Your task to perform on an android device: Open location settings Image 0: 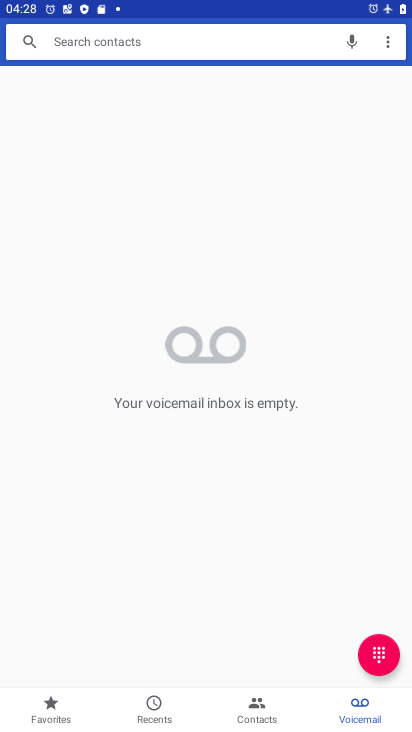
Step 0: press home button
Your task to perform on an android device: Open location settings Image 1: 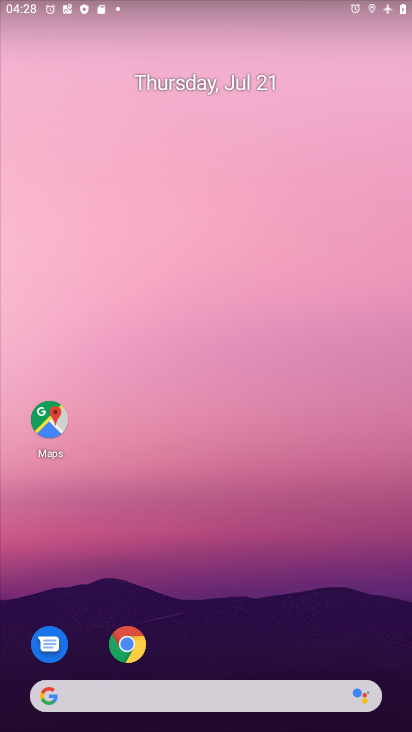
Step 1: drag from (226, 658) to (273, 0)
Your task to perform on an android device: Open location settings Image 2: 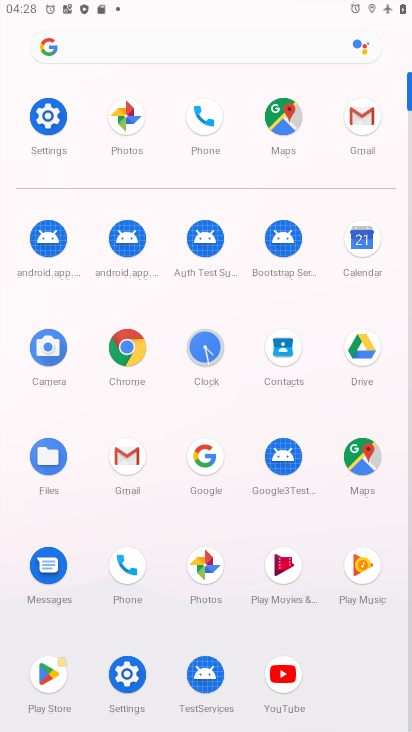
Step 2: click (44, 119)
Your task to perform on an android device: Open location settings Image 3: 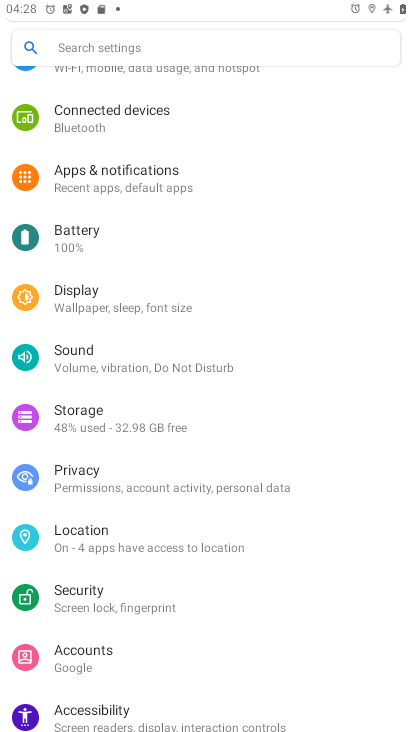
Step 3: click (82, 541)
Your task to perform on an android device: Open location settings Image 4: 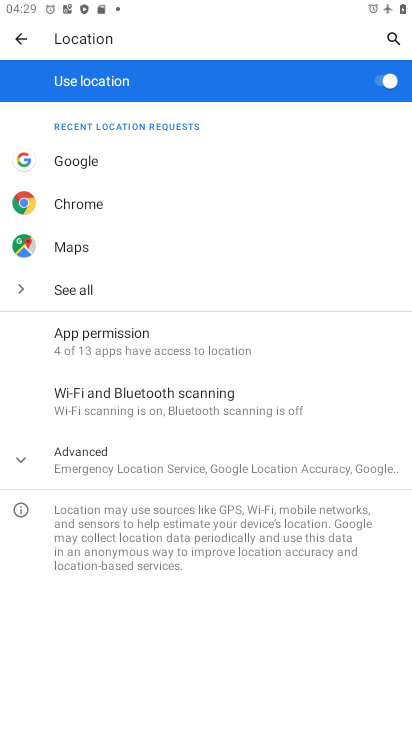
Step 4: task complete